Your task to perform on an android device: Open maps Image 0: 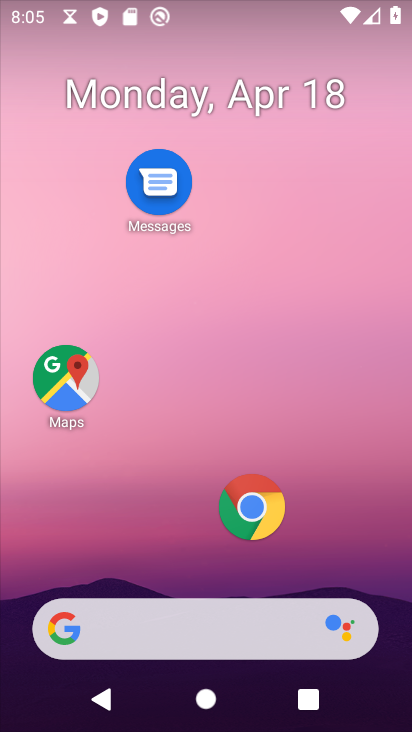
Step 0: click (66, 374)
Your task to perform on an android device: Open maps Image 1: 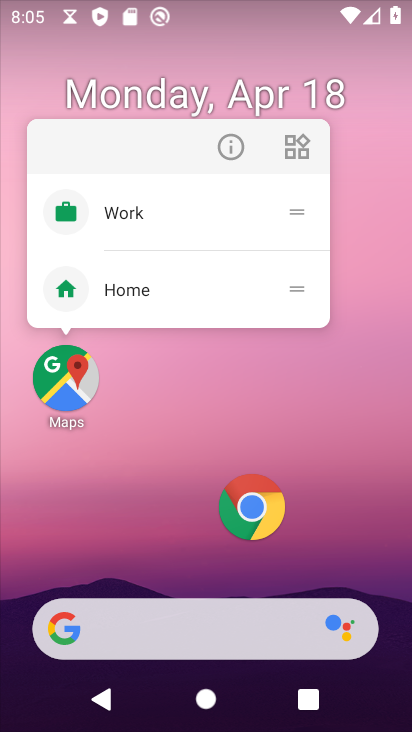
Step 1: click (63, 375)
Your task to perform on an android device: Open maps Image 2: 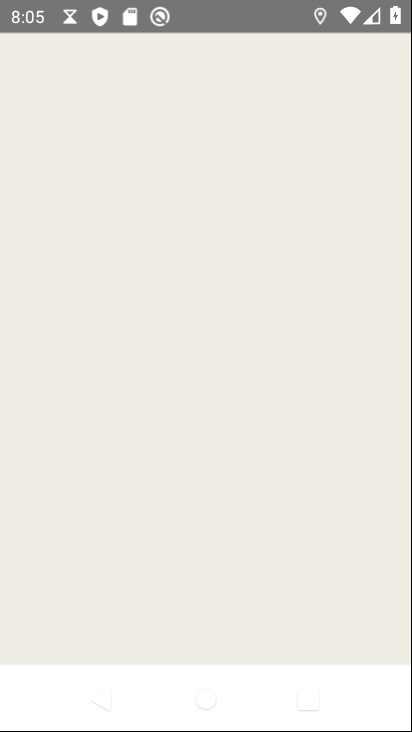
Step 2: click (59, 375)
Your task to perform on an android device: Open maps Image 3: 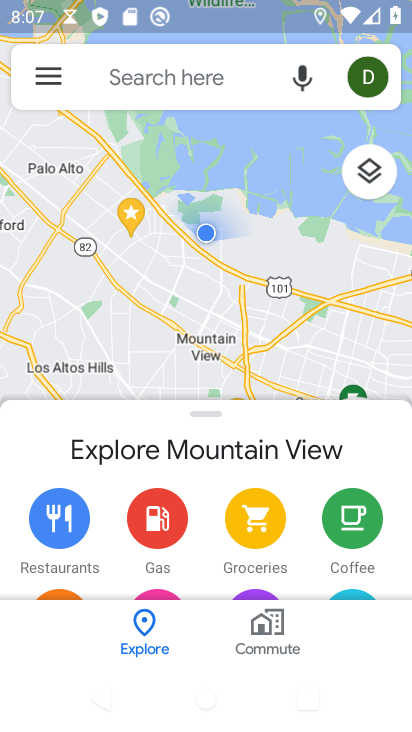
Step 3: task complete